Your task to perform on an android device: turn vacation reply on in the gmail app Image 0: 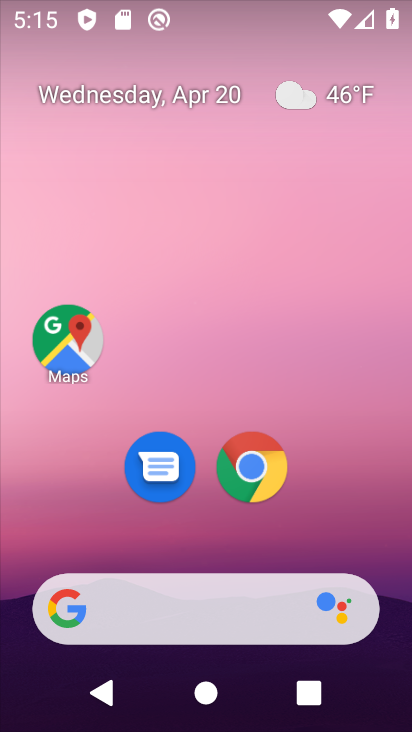
Step 0: drag from (190, 518) to (351, 0)
Your task to perform on an android device: turn vacation reply on in the gmail app Image 1: 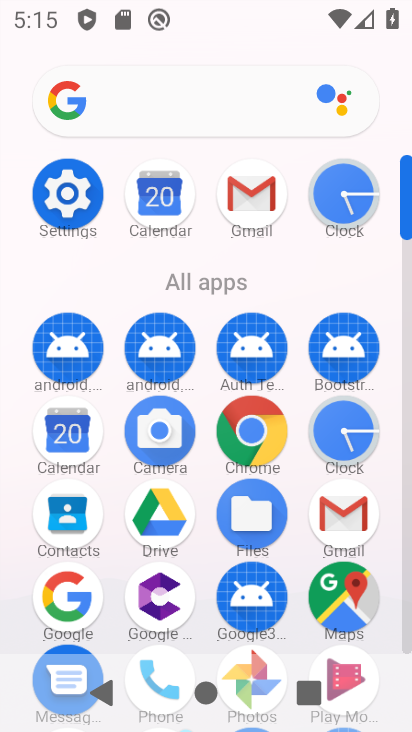
Step 1: click (350, 525)
Your task to perform on an android device: turn vacation reply on in the gmail app Image 2: 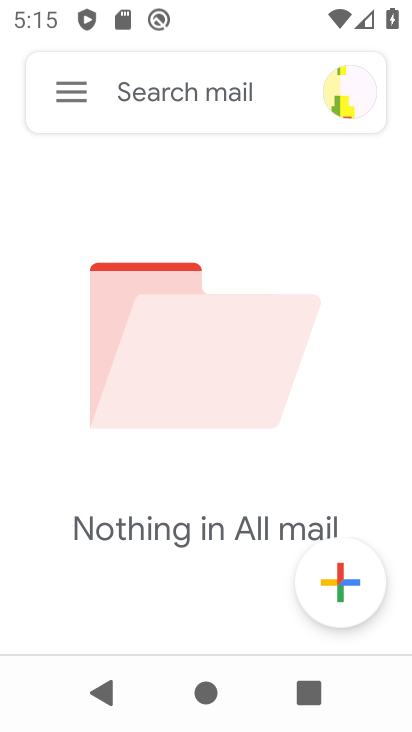
Step 2: click (70, 82)
Your task to perform on an android device: turn vacation reply on in the gmail app Image 3: 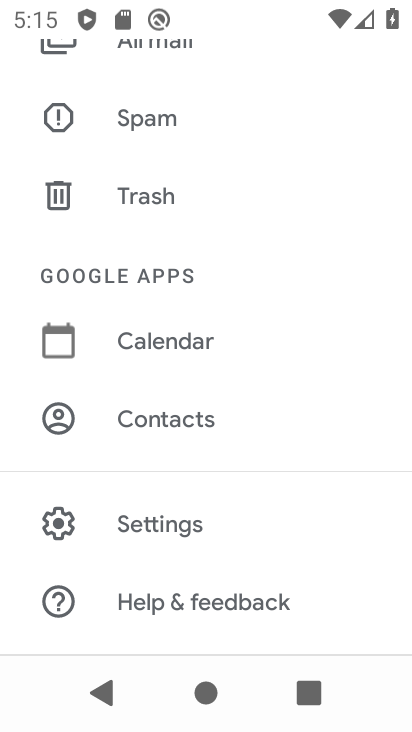
Step 3: click (143, 531)
Your task to perform on an android device: turn vacation reply on in the gmail app Image 4: 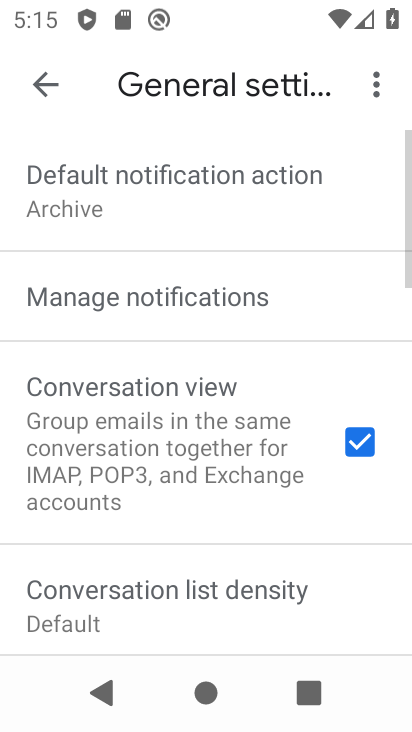
Step 4: click (46, 89)
Your task to perform on an android device: turn vacation reply on in the gmail app Image 5: 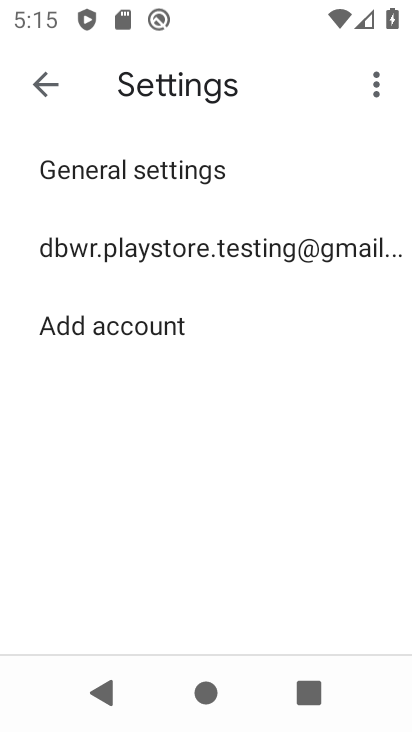
Step 5: click (151, 252)
Your task to perform on an android device: turn vacation reply on in the gmail app Image 6: 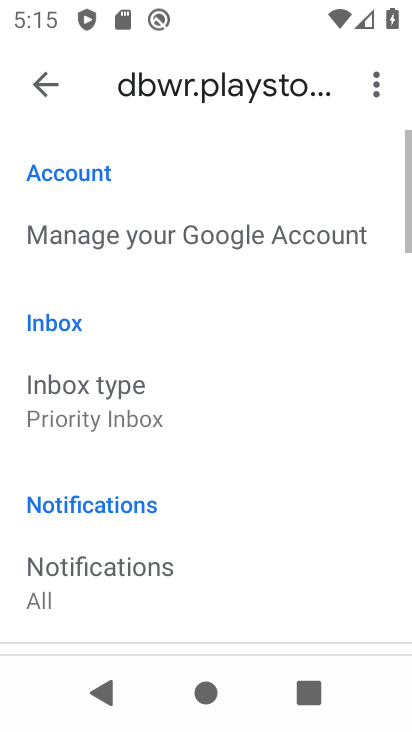
Step 6: drag from (150, 499) to (279, 37)
Your task to perform on an android device: turn vacation reply on in the gmail app Image 7: 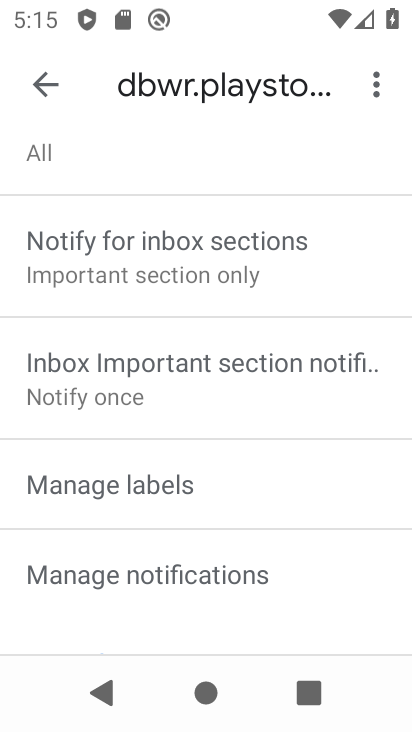
Step 7: drag from (161, 592) to (288, 8)
Your task to perform on an android device: turn vacation reply on in the gmail app Image 8: 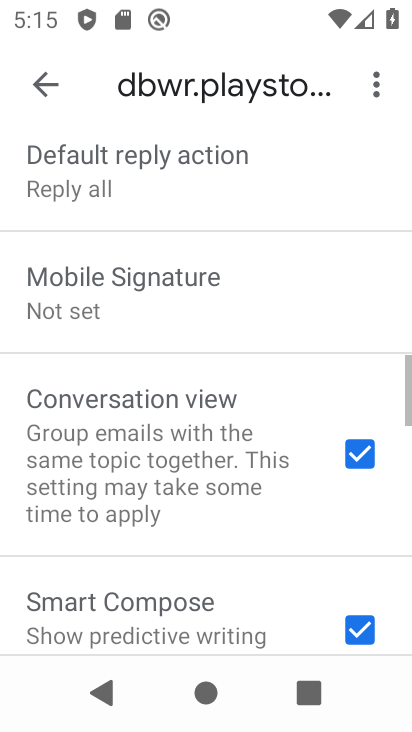
Step 8: drag from (140, 467) to (220, 175)
Your task to perform on an android device: turn vacation reply on in the gmail app Image 9: 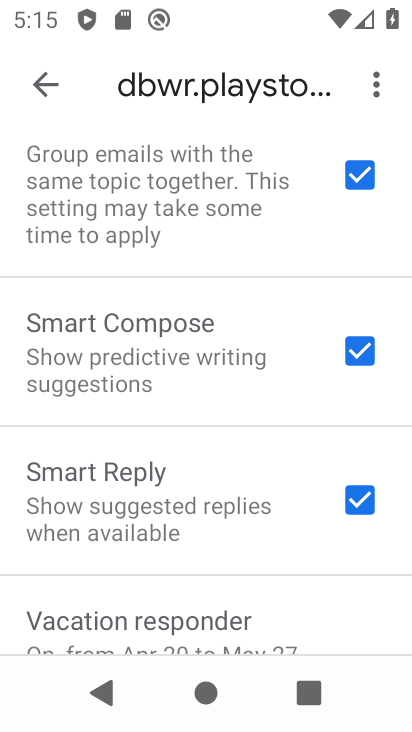
Step 9: drag from (139, 565) to (249, 189)
Your task to perform on an android device: turn vacation reply on in the gmail app Image 10: 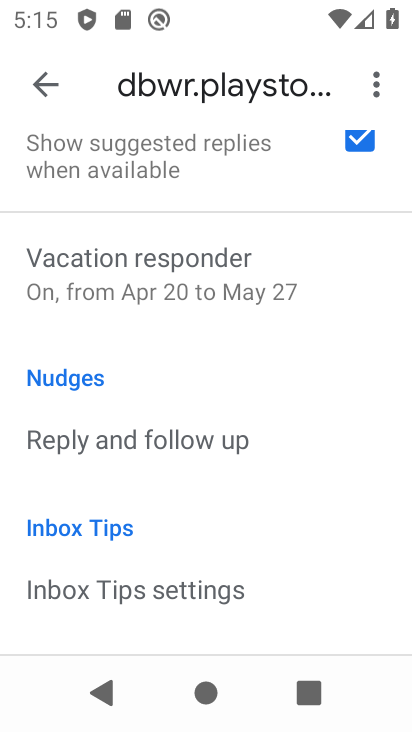
Step 10: click (127, 550)
Your task to perform on an android device: turn vacation reply on in the gmail app Image 11: 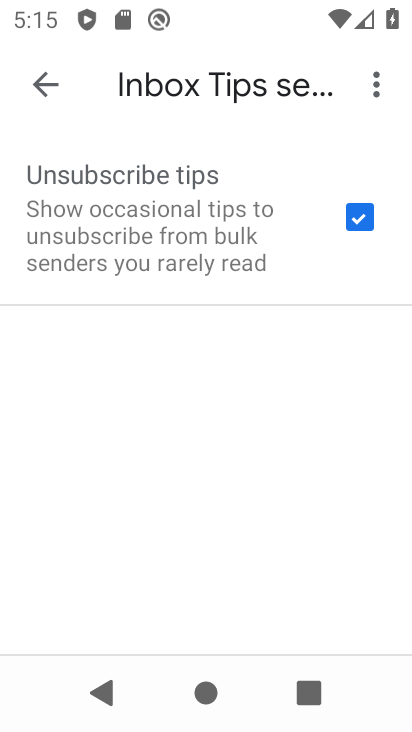
Step 11: click (96, 278)
Your task to perform on an android device: turn vacation reply on in the gmail app Image 12: 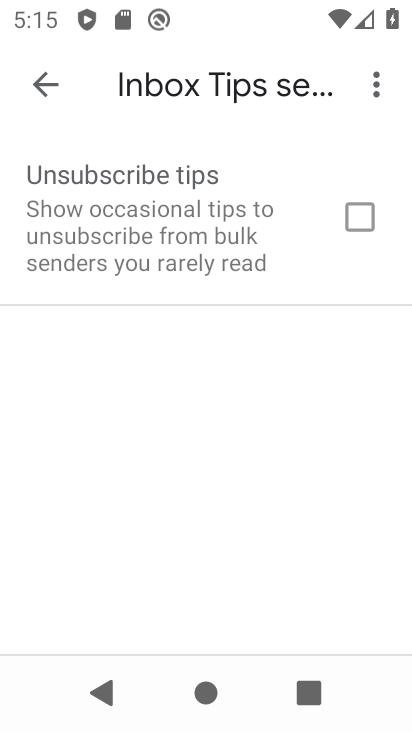
Step 12: click (50, 90)
Your task to perform on an android device: turn vacation reply on in the gmail app Image 13: 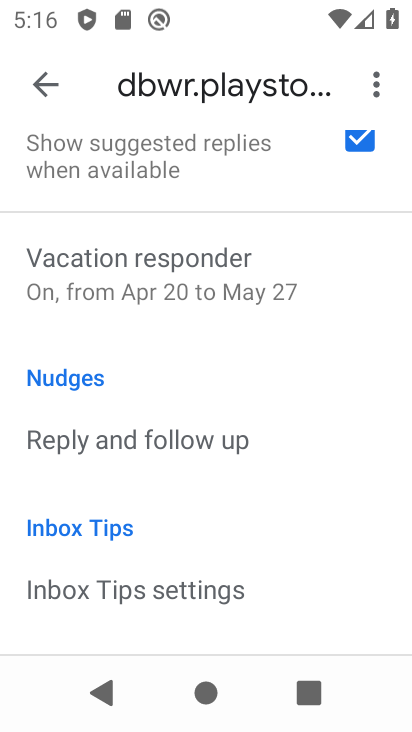
Step 13: click (140, 289)
Your task to perform on an android device: turn vacation reply on in the gmail app Image 14: 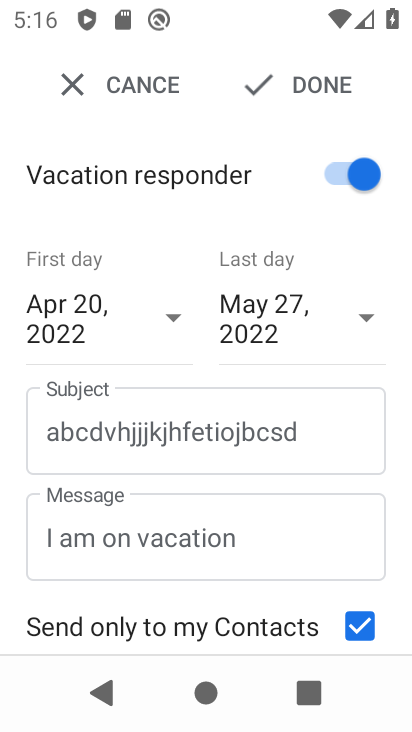
Step 14: task complete